Your task to perform on an android device: set an alarm Image 0: 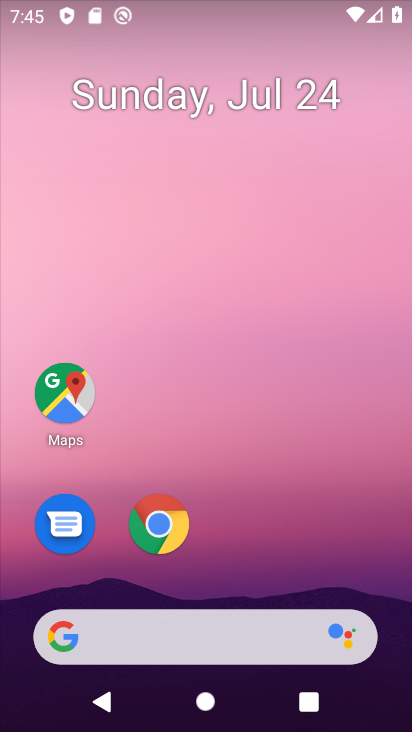
Step 0: drag from (247, 566) to (269, 33)
Your task to perform on an android device: set an alarm Image 1: 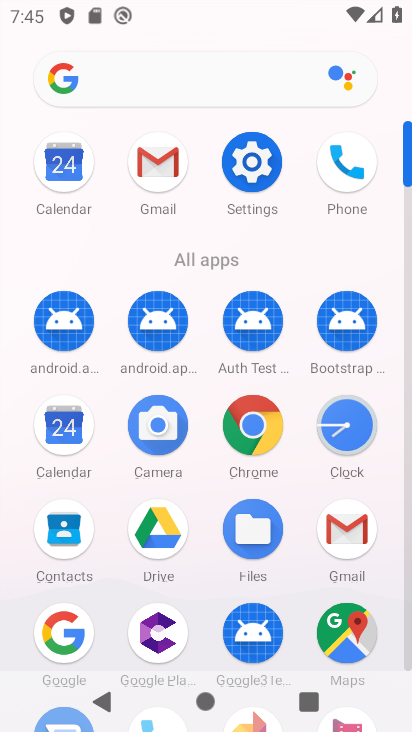
Step 1: click (348, 419)
Your task to perform on an android device: set an alarm Image 2: 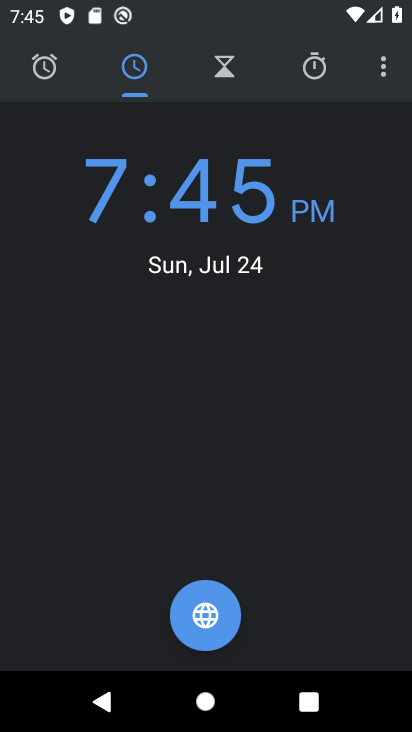
Step 2: click (51, 62)
Your task to perform on an android device: set an alarm Image 3: 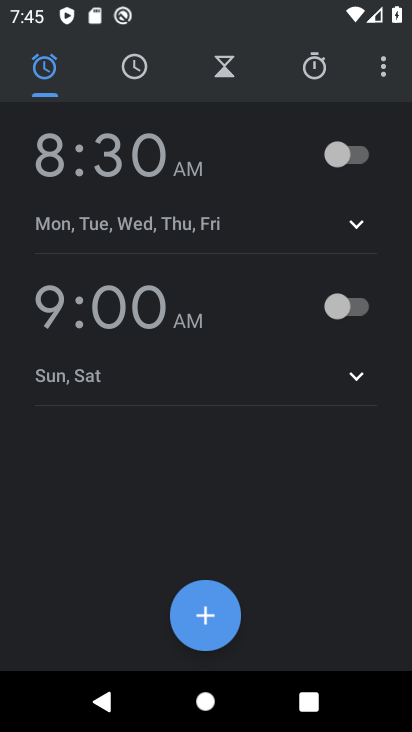
Step 3: click (210, 628)
Your task to perform on an android device: set an alarm Image 4: 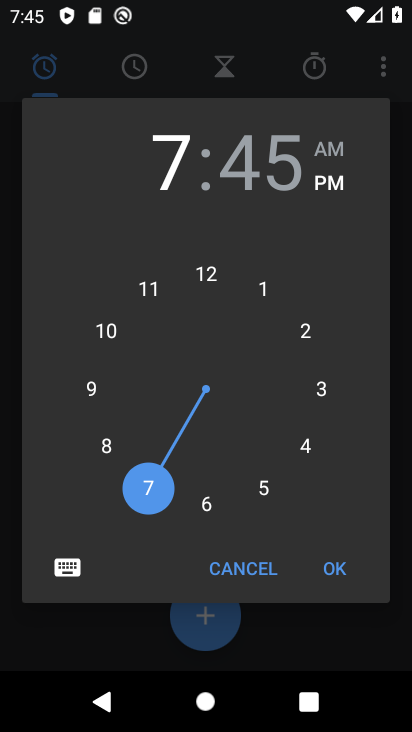
Step 4: click (262, 174)
Your task to perform on an android device: set an alarm Image 5: 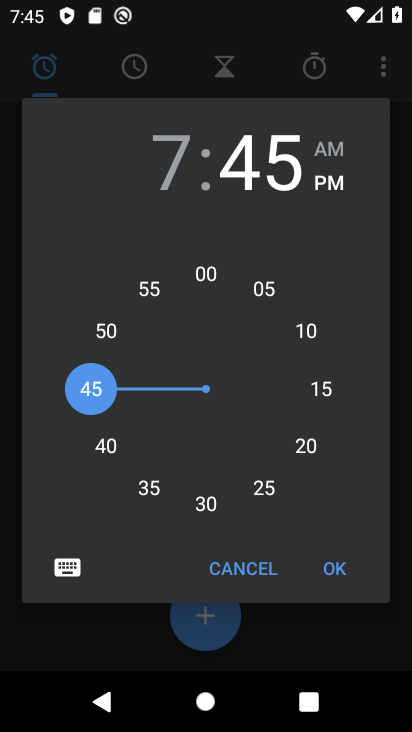
Step 5: click (207, 271)
Your task to perform on an android device: set an alarm Image 6: 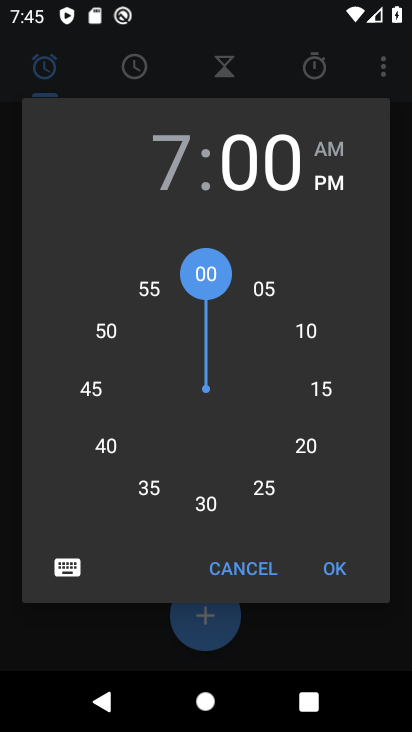
Step 6: click (333, 564)
Your task to perform on an android device: set an alarm Image 7: 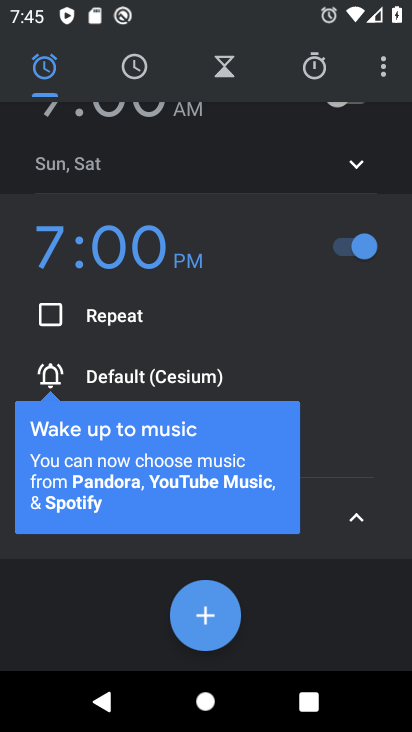
Step 7: task complete